Your task to perform on an android device: add a label to a message in the gmail app Image 0: 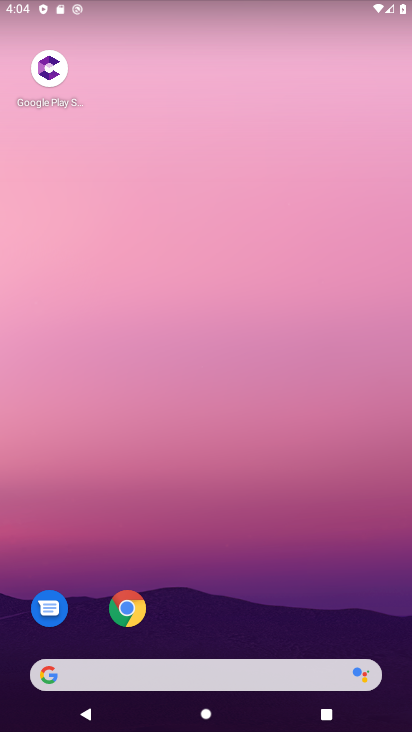
Step 0: press home button
Your task to perform on an android device: add a label to a message in the gmail app Image 1: 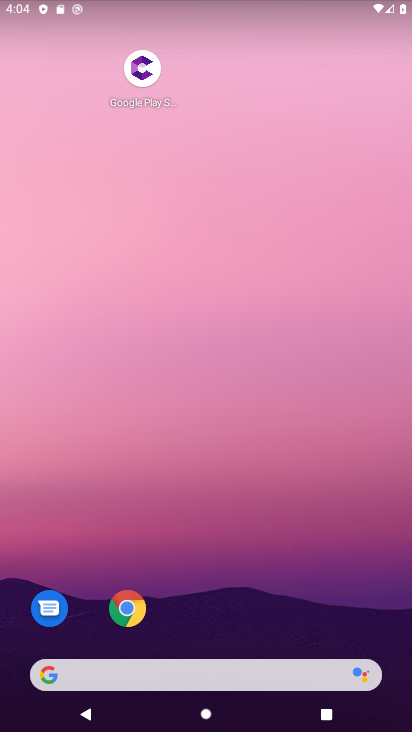
Step 1: drag from (262, 619) to (214, 108)
Your task to perform on an android device: add a label to a message in the gmail app Image 2: 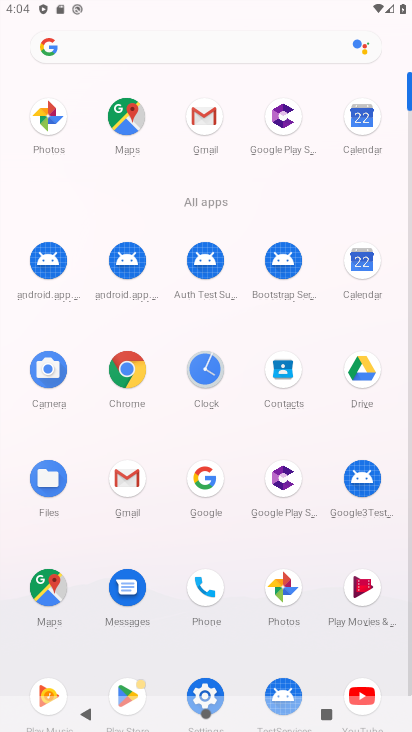
Step 2: click (205, 113)
Your task to perform on an android device: add a label to a message in the gmail app Image 3: 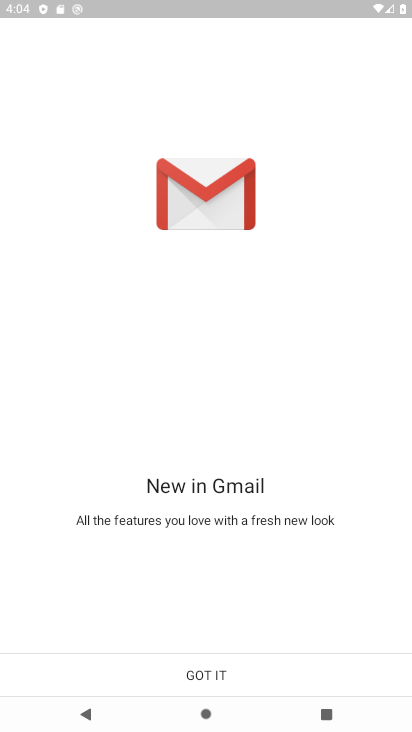
Step 3: click (209, 666)
Your task to perform on an android device: add a label to a message in the gmail app Image 4: 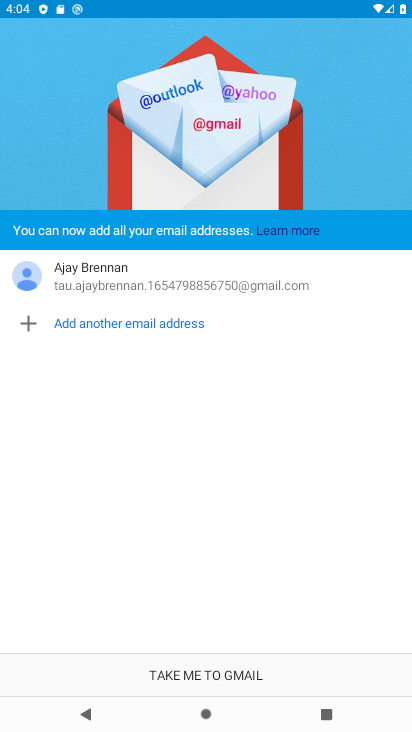
Step 4: click (201, 669)
Your task to perform on an android device: add a label to a message in the gmail app Image 5: 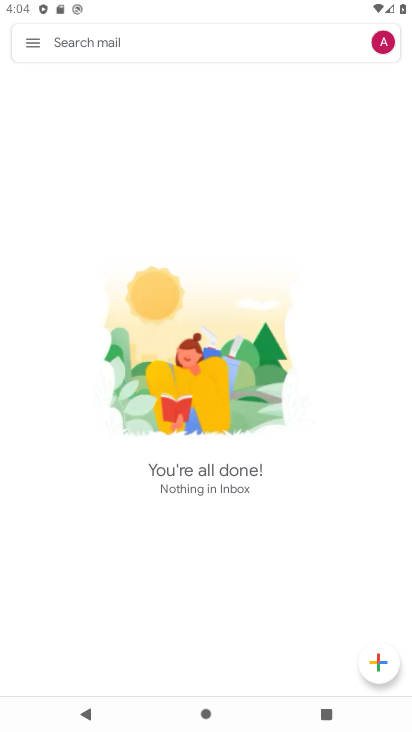
Step 5: click (31, 43)
Your task to perform on an android device: add a label to a message in the gmail app Image 6: 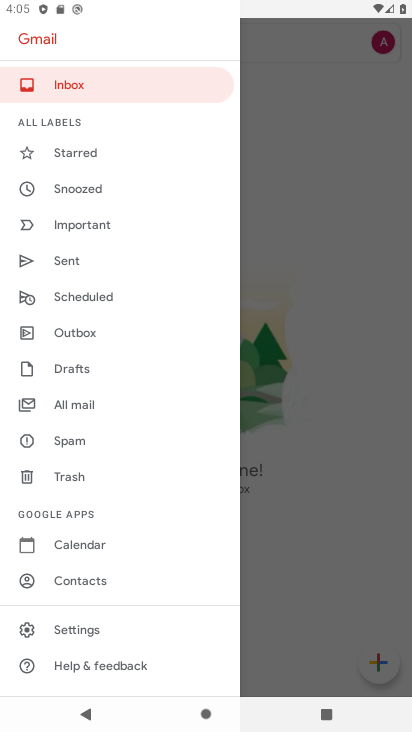
Step 6: click (70, 402)
Your task to perform on an android device: add a label to a message in the gmail app Image 7: 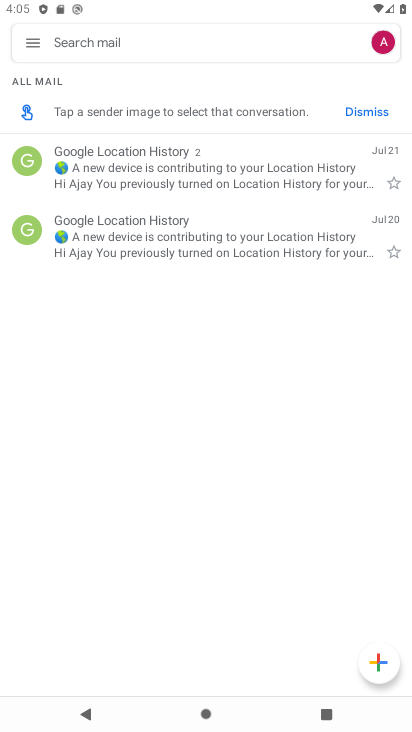
Step 7: click (148, 164)
Your task to perform on an android device: add a label to a message in the gmail app Image 8: 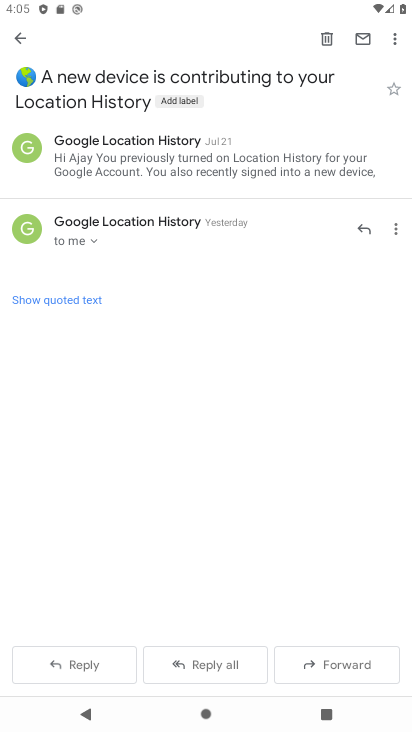
Step 8: click (167, 96)
Your task to perform on an android device: add a label to a message in the gmail app Image 9: 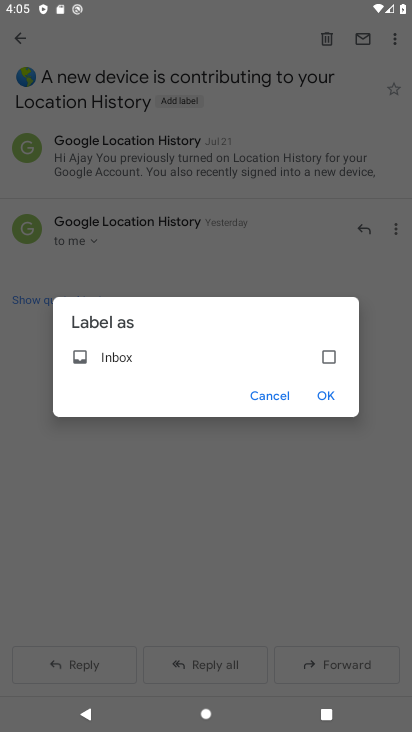
Step 9: click (332, 359)
Your task to perform on an android device: add a label to a message in the gmail app Image 10: 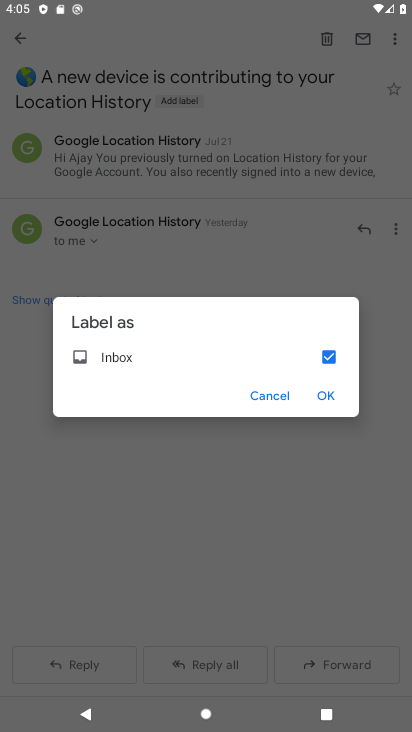
Step 10: click (328, 392)
Your task to perform on an android device: add a label to a message in the gmail app Image 11: 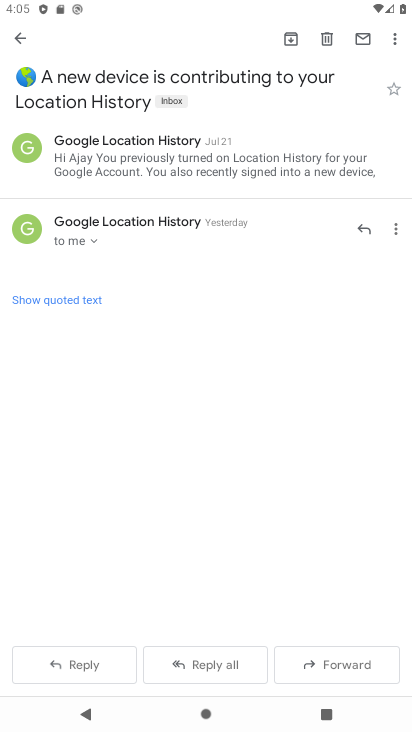
Step 11: task complete